Your task to perform on an android device: Check the weather Image 0: 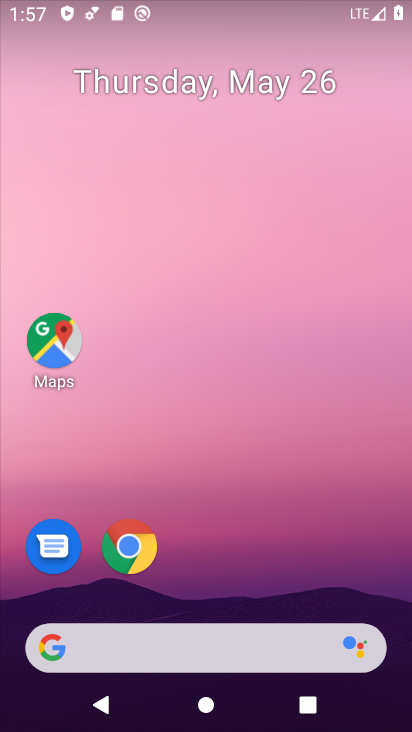
Step 0: drag from (280, 510) to (190, 12)
Your task to perform on an android device: Check the weather Image 1: 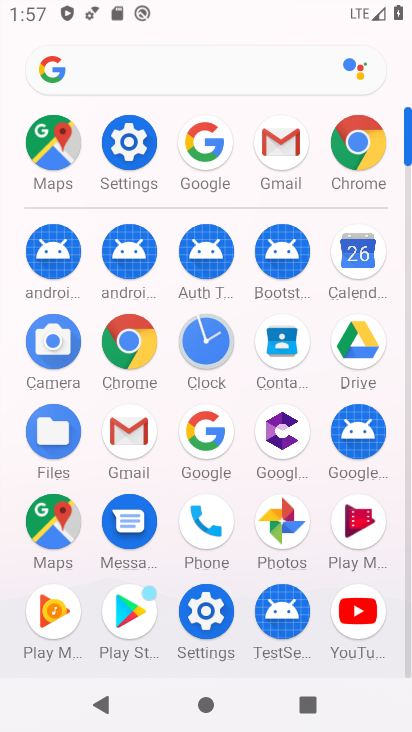
Step 1: click (207, 438)
Your task to perform on an android device: Check the weather Image 2: 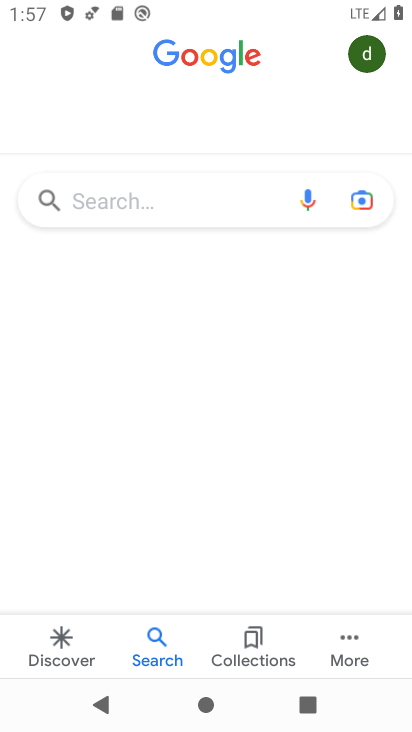
Step 2: click (218, 192)
Your task to perform on an android device: Check the weather Image 3: 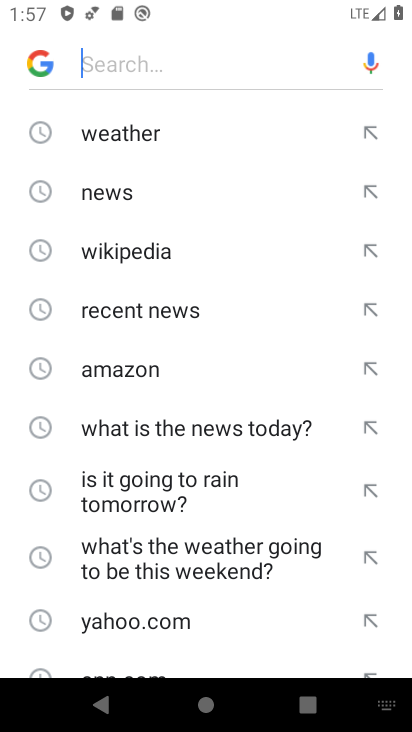
Step 3: click (148, 132)
Your task to perform on an android device: Check the weather Image 4: 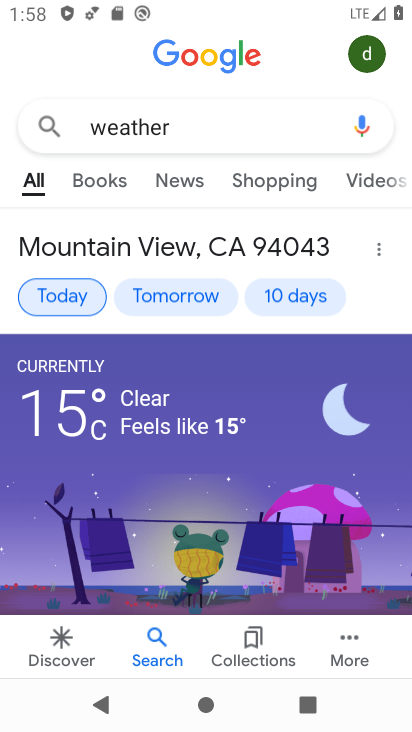
Step 4: task complete